Your task to perform on an android device: turn on sleep mode Image 0: 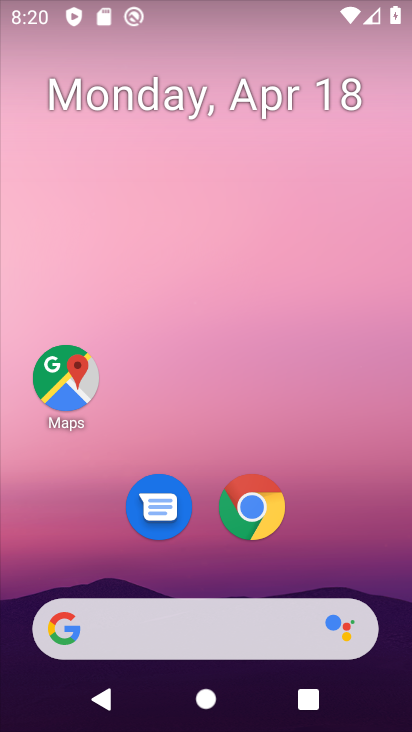
Step 0: drag from (298, 399) to (264, 185)
Your task to perform on an android device: turn on sleep mode Image 1: 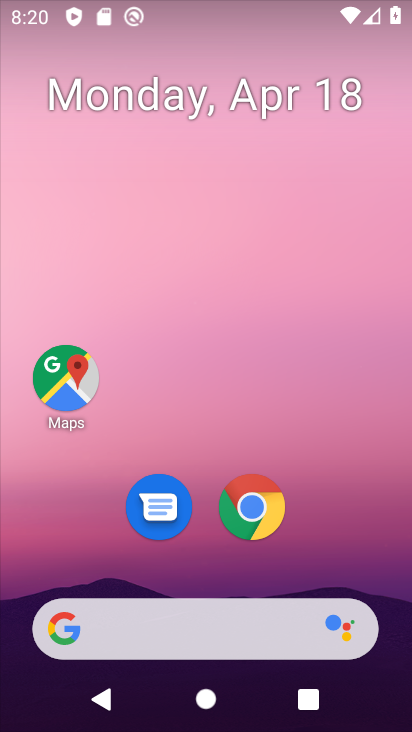
Step 1: drag from (323, 542) to (318, 171)
Your task to perform on an android device: turn on sleep mode Image 2: 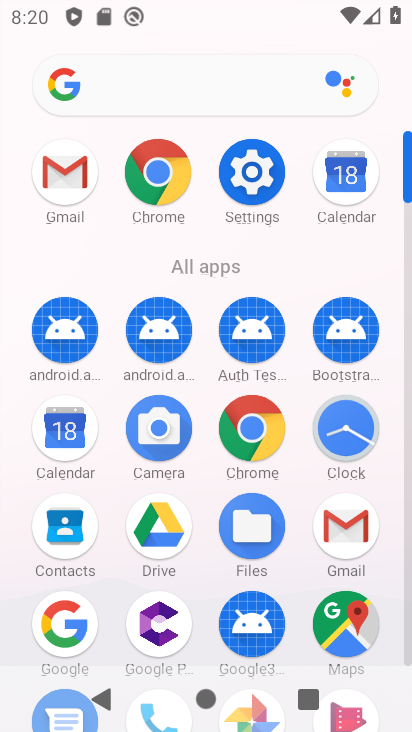
Step 2: click (267, 167)
Your task to perform on an android device: turn on sleep mode Image 3: 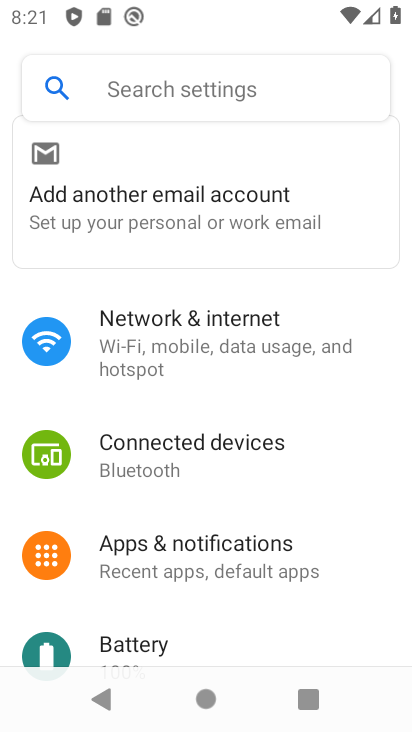
Step 3: drag from (261, 633) to (228, 349)
Your task to perform on an android device: turn on sleep mode Image 4: 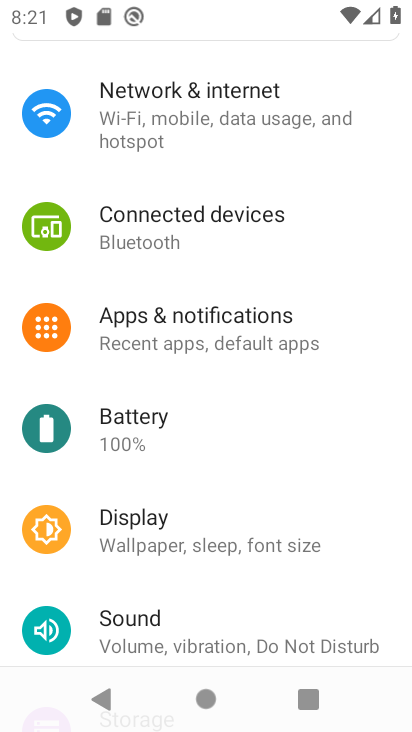
Step 4: click (228, 547)
Your task to perform on an android device: turn on sleep mode Image 5: 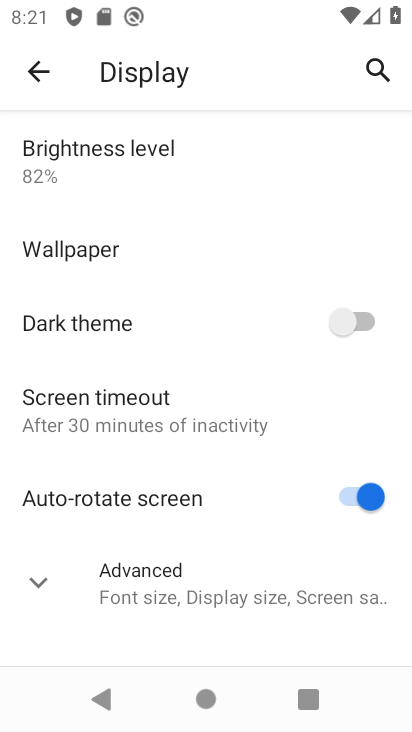
Step 5: drag from (229, 489) to (235, 282)
Your task to perform on an android device: turn on sleep mode Image 6: 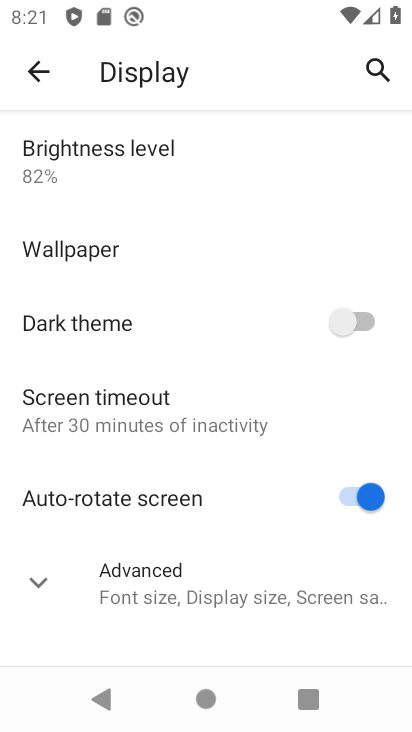
Step 6: click (186, 580)
Your task to perform on an android device: turn on sleep mode Image 7: 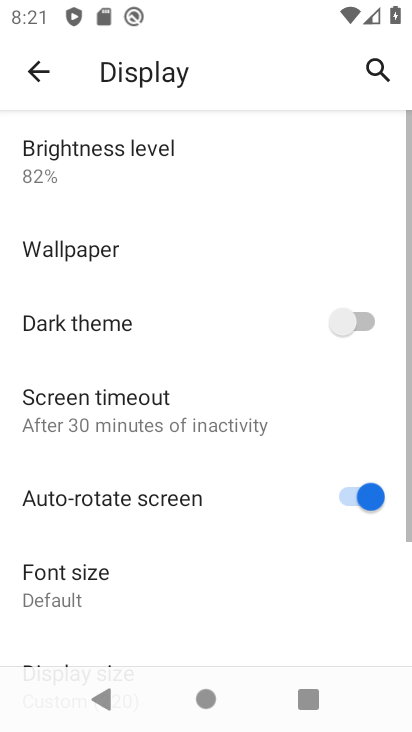
Step 7: task complete